Your task to perform on an android device: install app "Microsoft Outlook" Image 0: 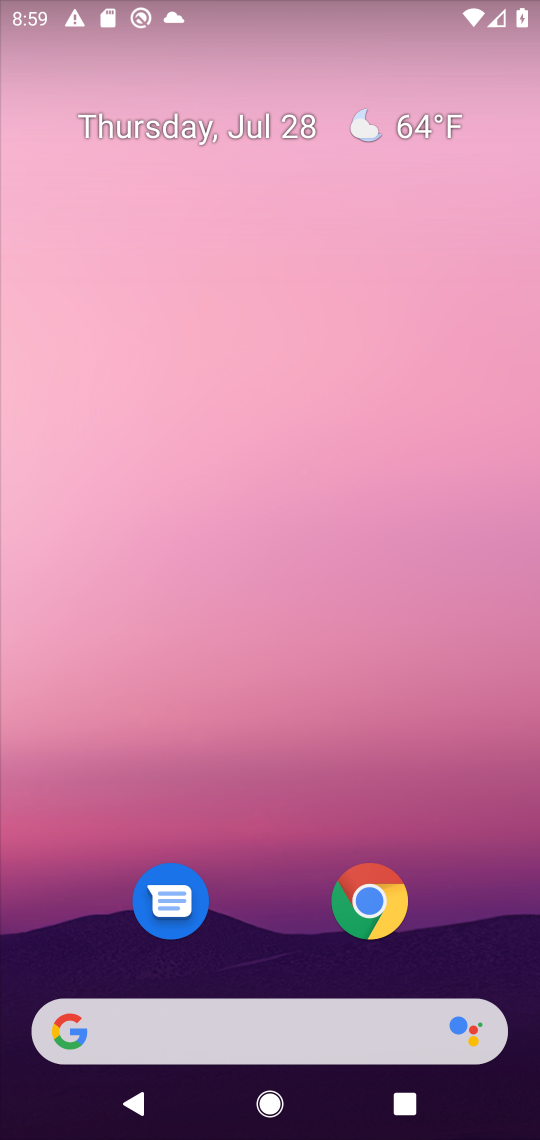
Step 0: drag from (447, 592) to (422, 348)
Your task to perform on an android device: install app "Microsoft Outlook" Image 1: 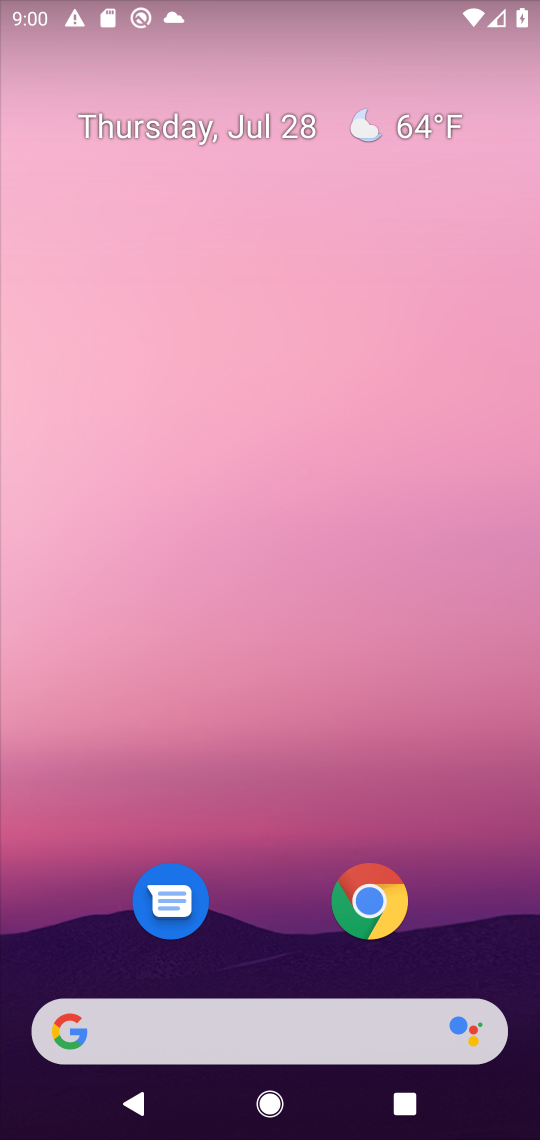
Step 1: click (346, 895)
Your task to perform on an android device: install app "Microsoft Outlook" Image 2: 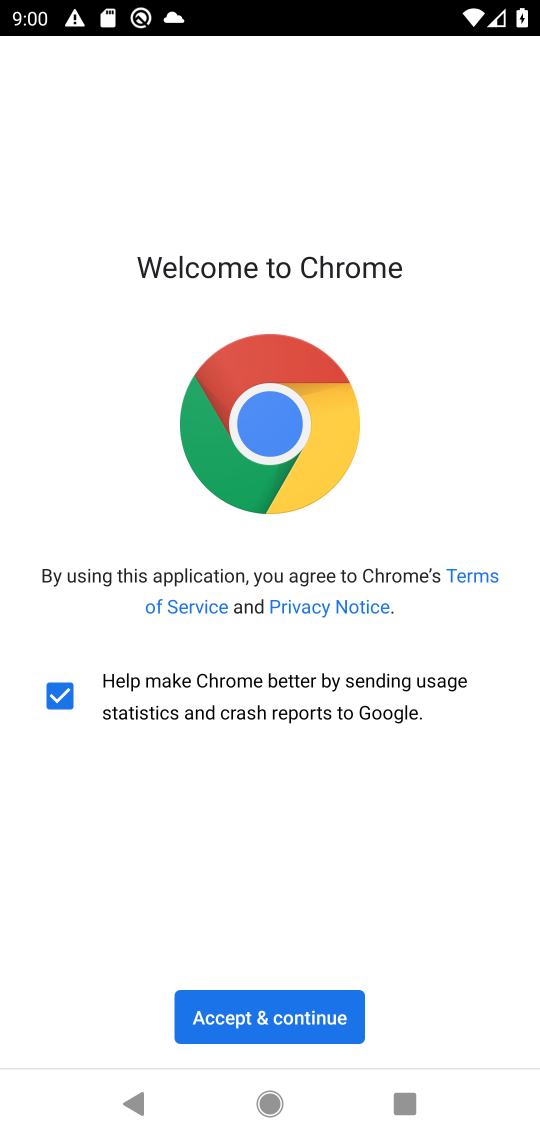
Step 2: press home button
Your task to perform on an android device: install app "Microsoft Outlook" Image 3: 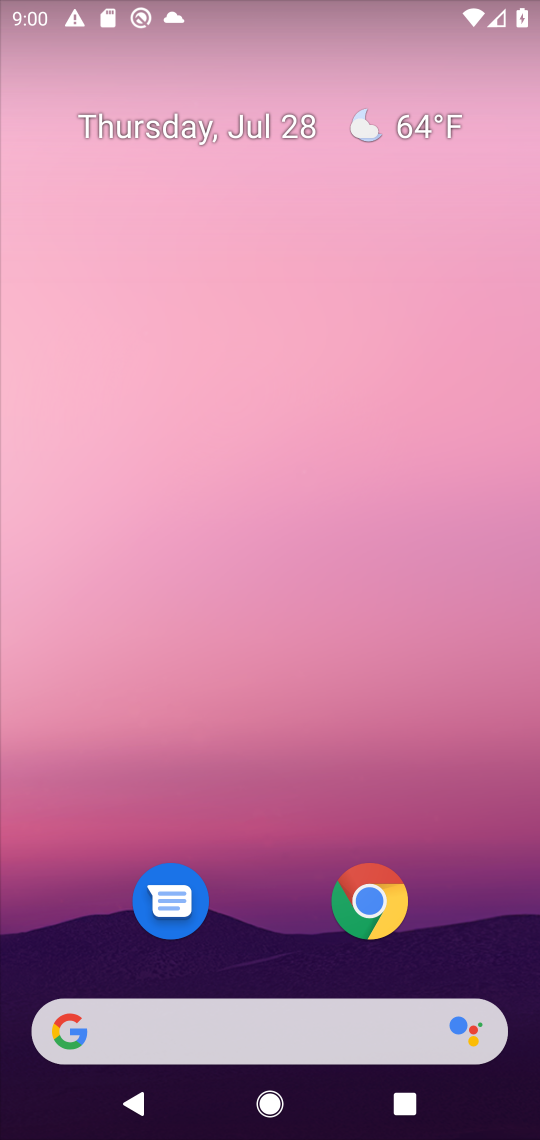
Step 3: drag from (428, 747) to (52, 733)
Your task to perform on an android device: install app "Microsoft Outlook" Image 4: 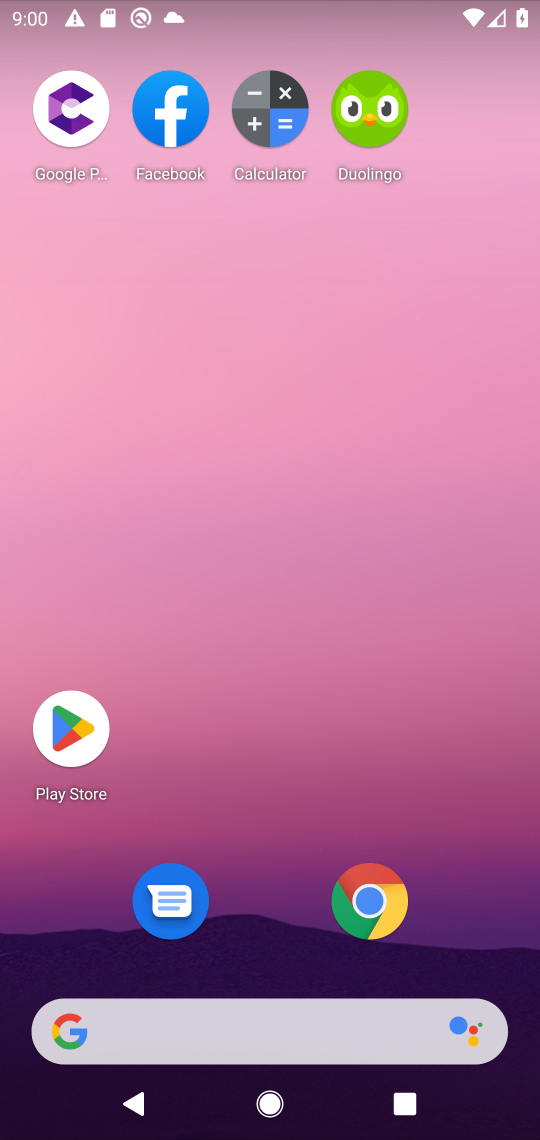
Step 4: click (72, 731)
Your task to perform on an android device: install app "Microsoft Outlook" Image 5: 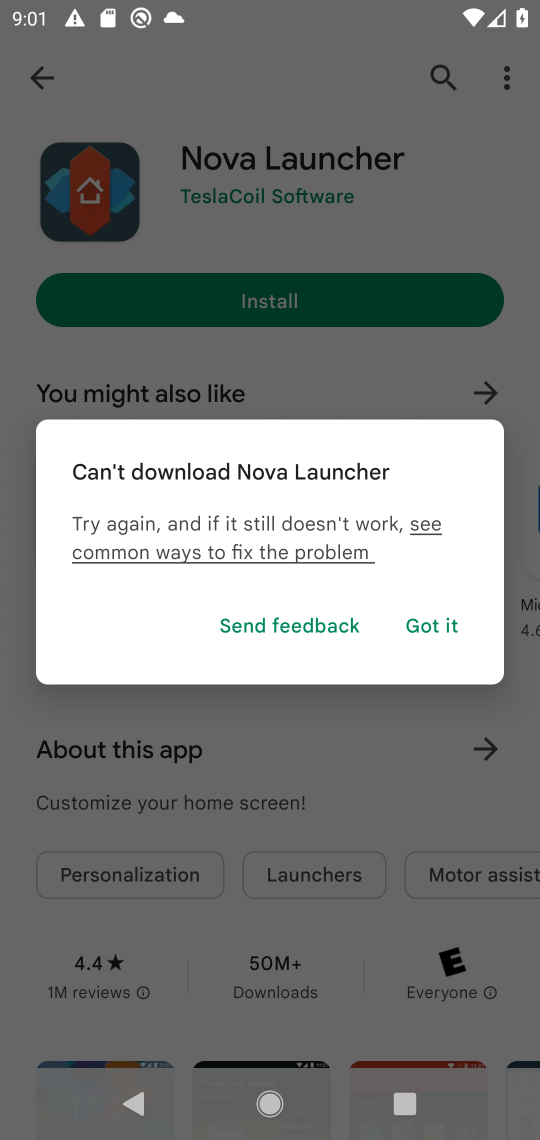
Step 5: click (422, 616)
Your task to perform on an android device: install app "Microsoft Outlook" Image 6: 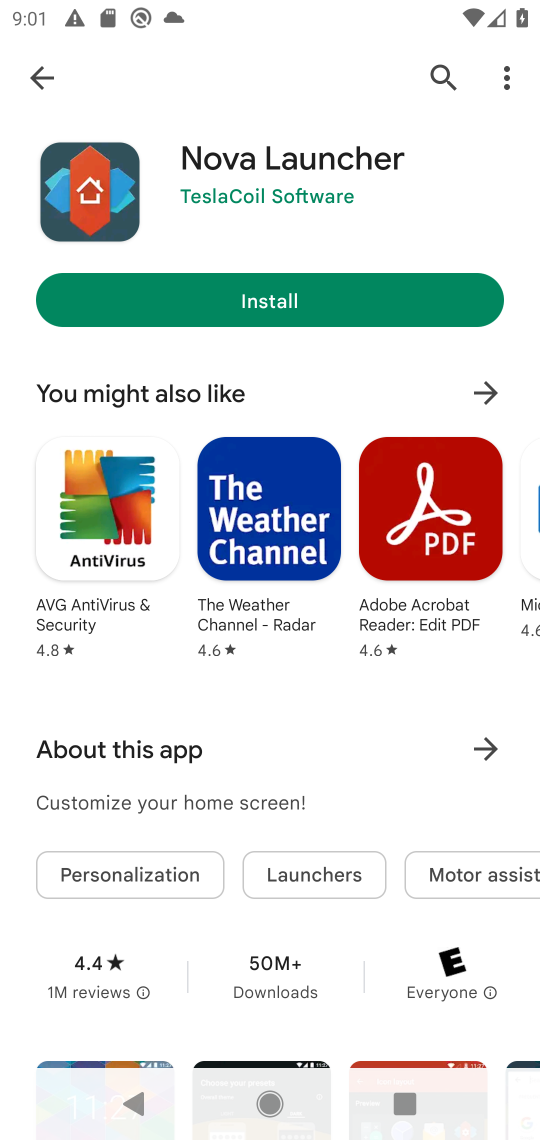
Step 6: click (41, 81)
Your task to perform on an android device: install app "Microsoft Outlook" Image 7: 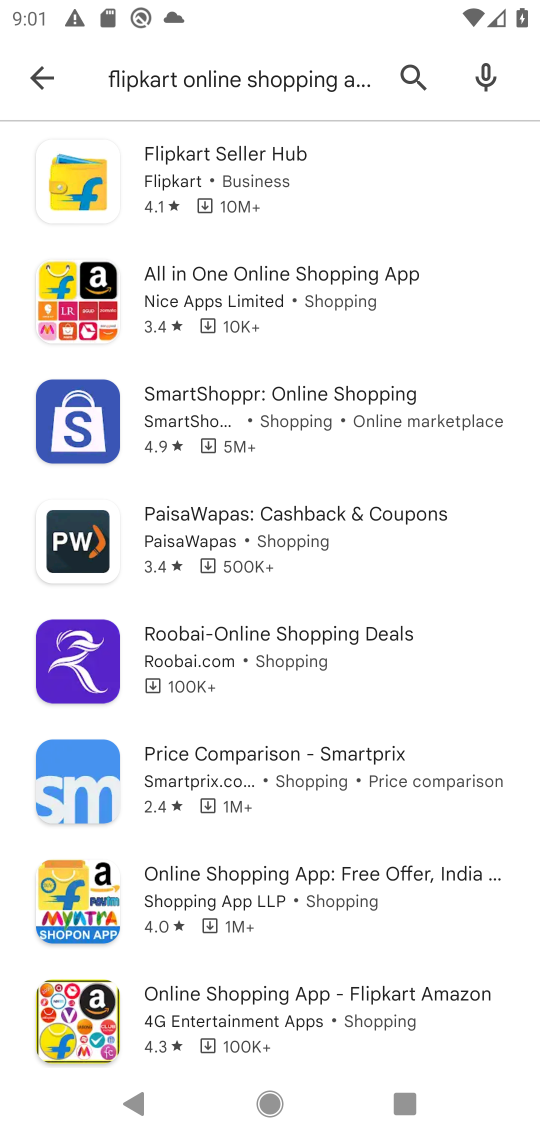
Step 7: click (400, 75)
Your task to perform on an android device: install app "Microsoft Outlook" Image 8: 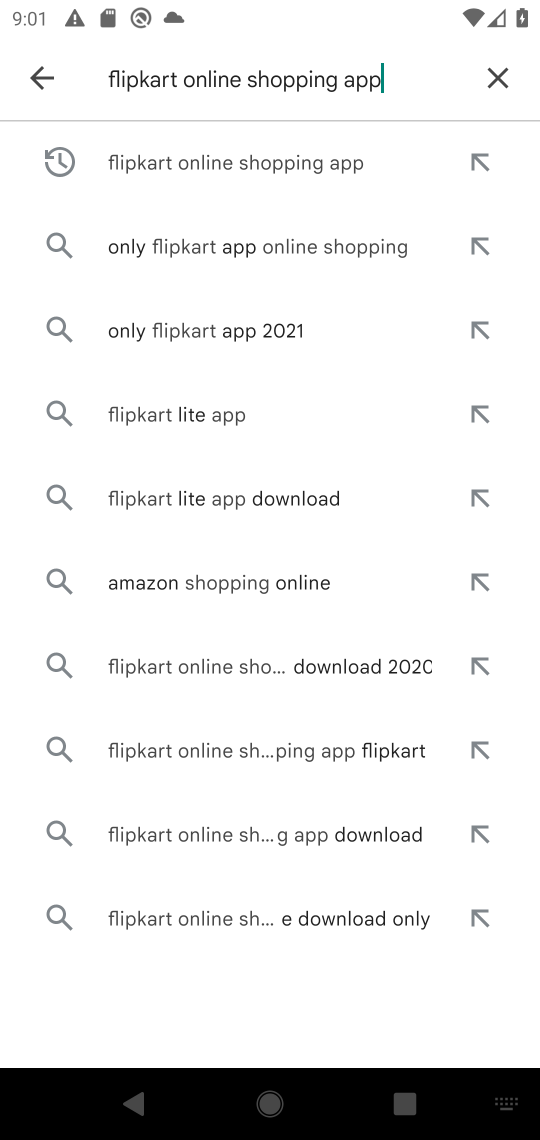
Step 8: click (494, 73)
Your task to perform on an android device: install app "Microsoft Outlook" Image 9: 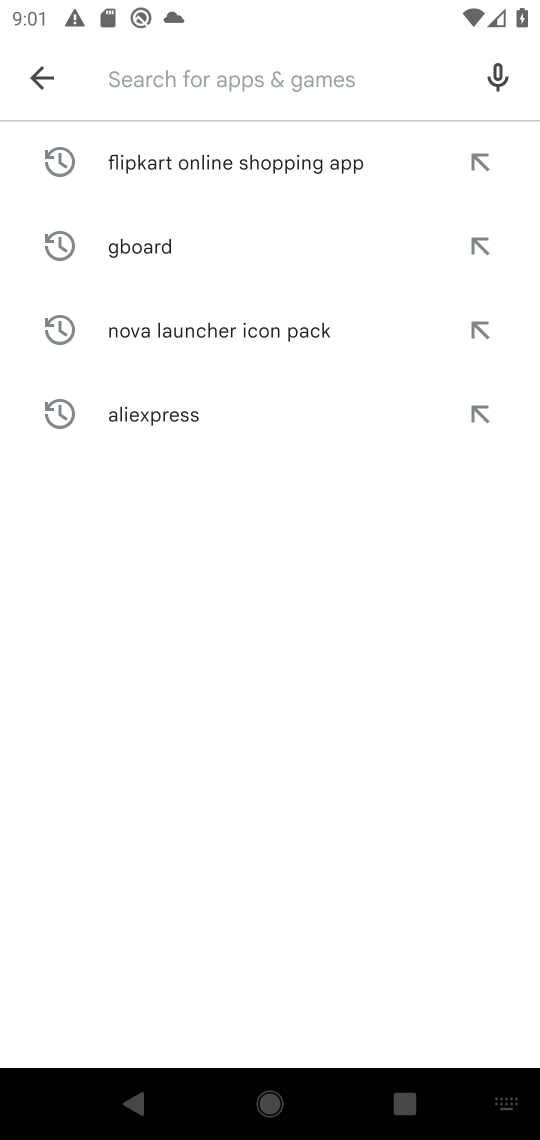
Step 9: type "Microsoft Outlook"
Your task to perform on an android device: install app "Microsoft Outlook" Image 10: 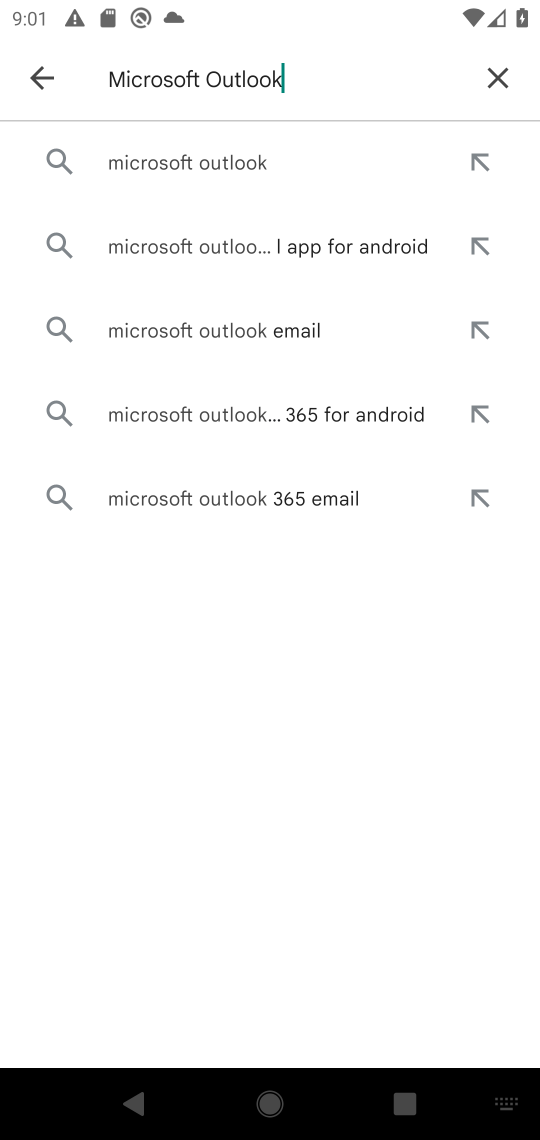
Step 10: click (154, 159)
Your task to perform on an android device: install app "Microsoft Outlook" Image 11: 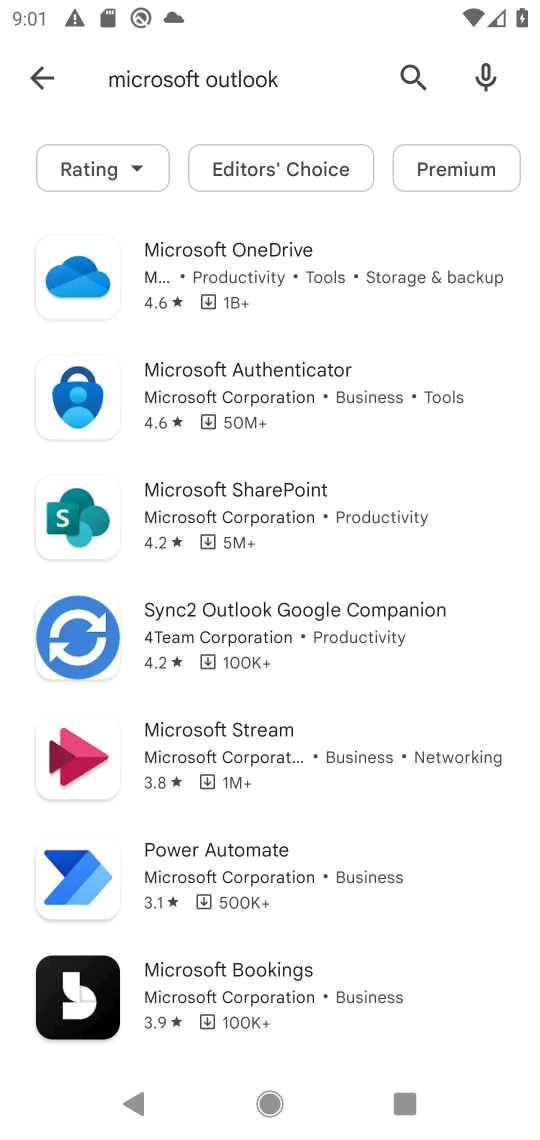
Step 11: task complete